Your task to perform on an android device: turn off priority inbox in the gmail app Image 0: 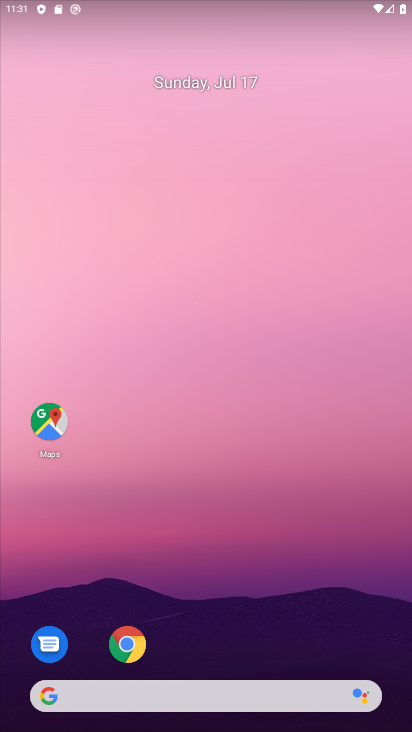
Step 0: drag from (395, 623) to (318, 7)
Your task to perform on an android device: turn off priority inbox in the gmail app Image 1: 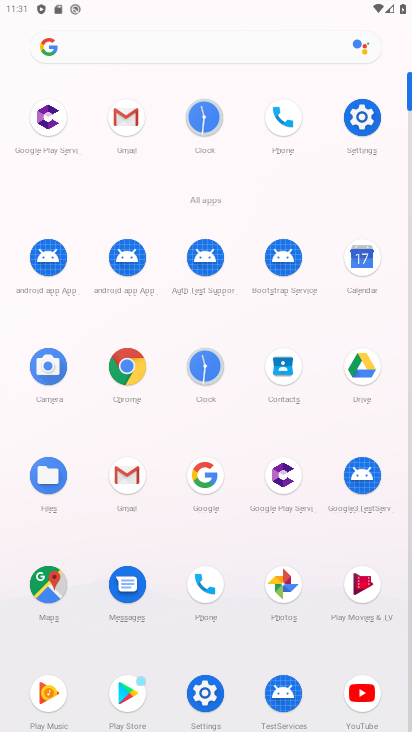
Step 1: drag from (129, 112) to (134, 377)
Your task to perform on an android device: turn off priority inbox in the gmail app Image 2: 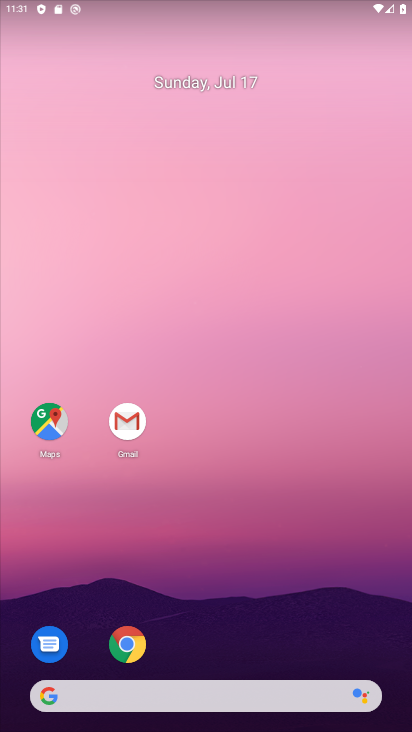
Step 2: click (128, 428)
Your task to perform on an android device: turn off priority inbox in the gmail app Image 3: 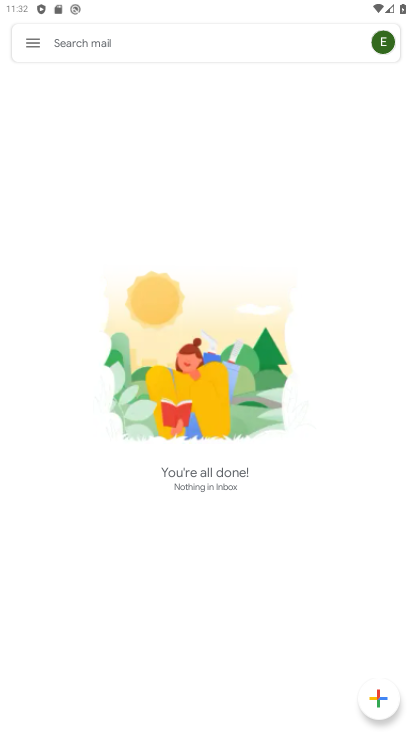
Step 3: click (34, 49)
Your task to perform on an android device: turn off priority inbox in the gmail app Image 4: 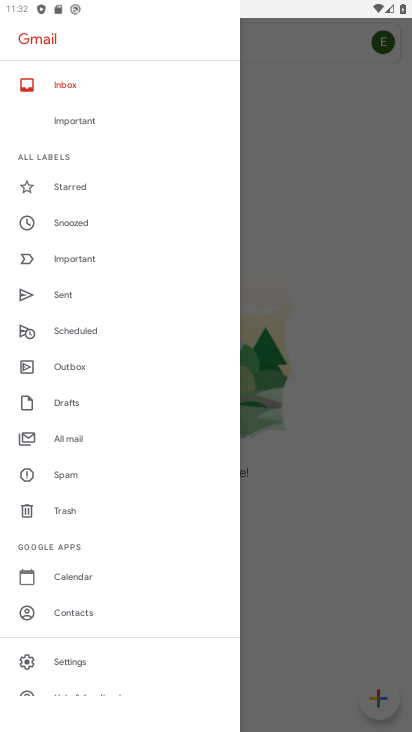
Step 4: click (73, 660)
Your task to perform on an android device: turn off priority inbox in the gmail app Image 5: 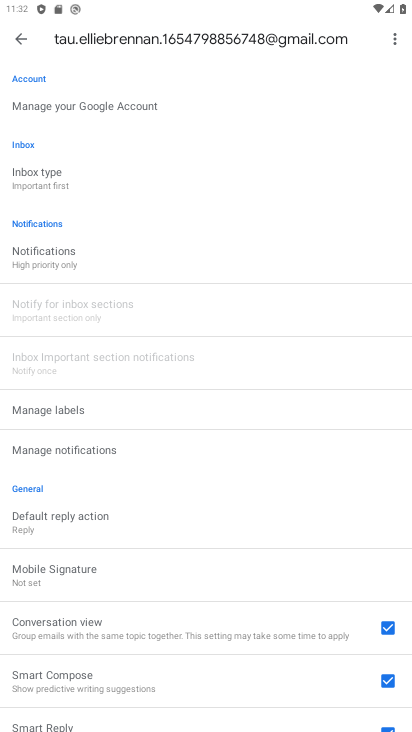
Step 5: drag from (134, 227) to (200, 536)
Your task to perform on an android device: turn off priority inbox in the gmail app Image 6: 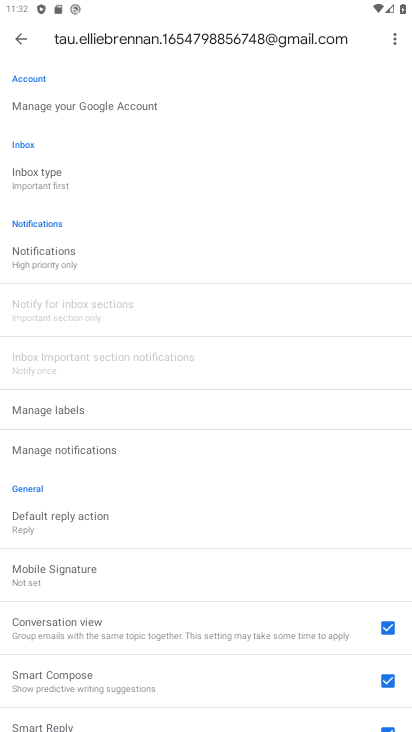
Step 6: click (55, 185)
Your task to perform on an android device: turn off priority inbox in the gmail app Image 7: 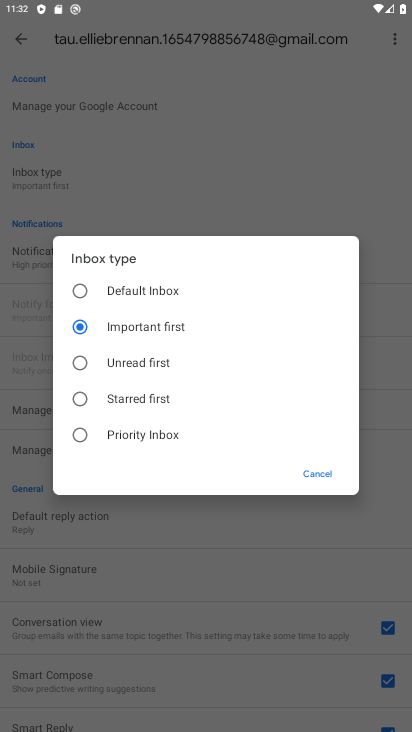
Step 7: task complete